Your task to perform on an android device: change text size in settings app Image 0: 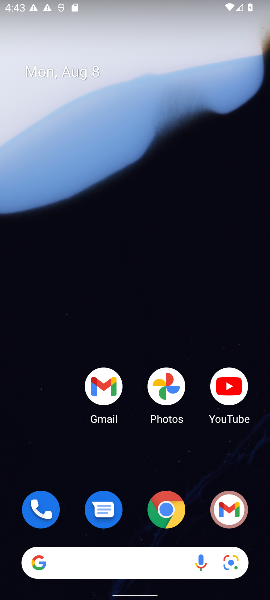
Step 0: drag from (138, 469) to (164, 4)
Your task to perform on an android device: change text size in settings app Image 1: 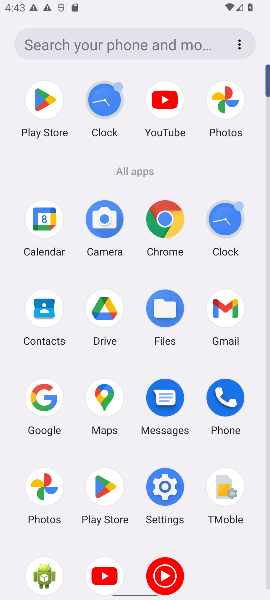
Step 1: click (170, 485)
Your task to perform on an android device: change text size in settings app Image 2: 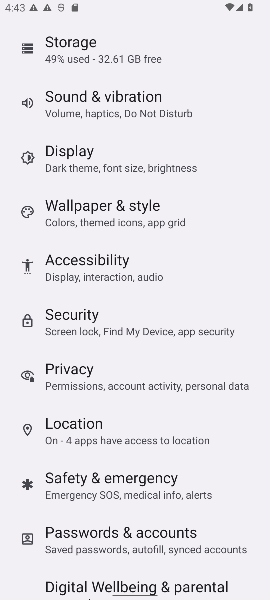
Step 2: click (72, 152)
Your task to perform on an android device: change text size in settings app Image 3: 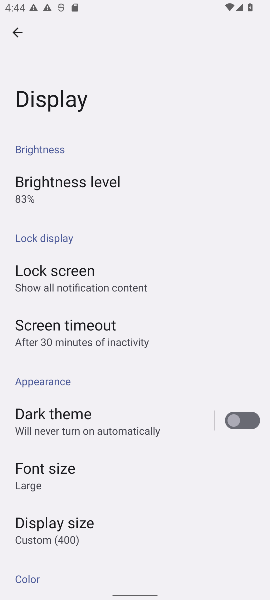
Step 3: click (66, 471)
Your task to perform on an android device: change text size in settings app Image 4: 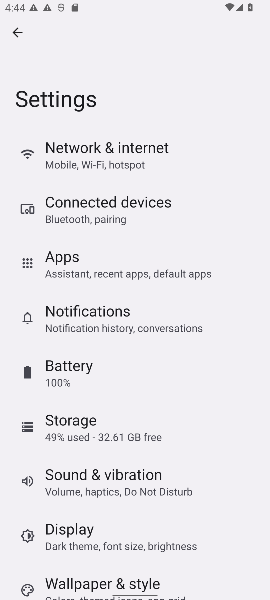
Step 4: task complete